Your task to perform on an android device: turn on improve location accuracy Image 0: 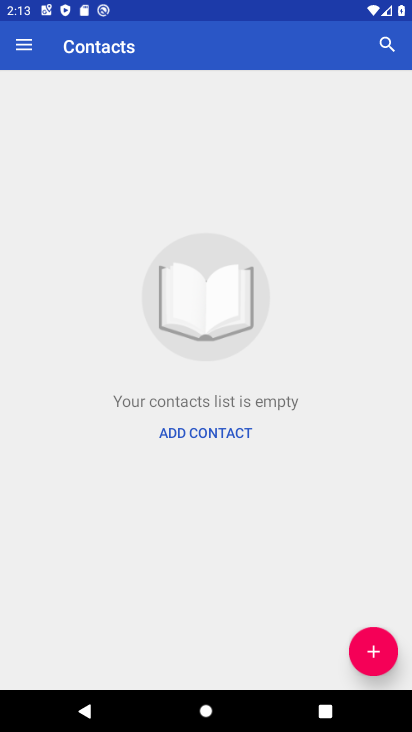
Step 0: press back button
Your task to perform on an android device: turn on improve location accuracy Image 1: 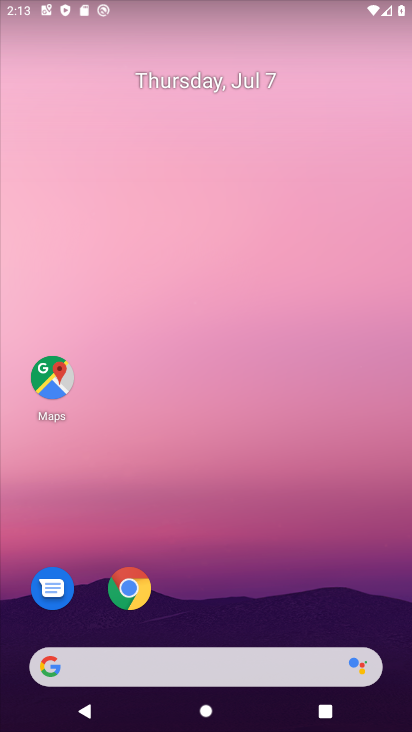
Step 1: drag from (228, 637) to (213, 12)
Your task to perform on an android device: turn on improve location accuracy Image 2: 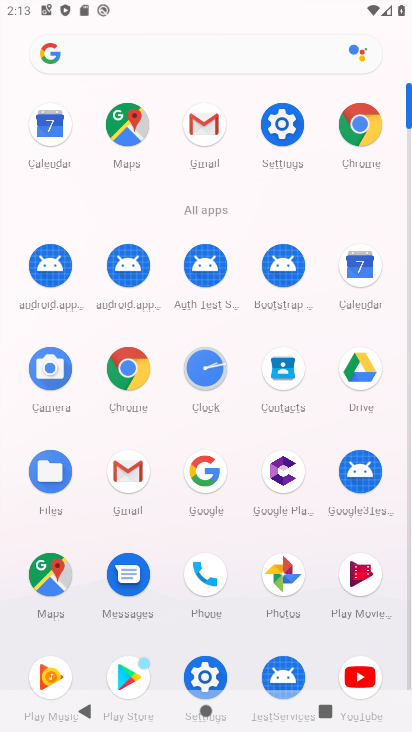
Step 2: click (281, 118)
Your task to perform on an android device: turn on improve location accuracy Image 3: 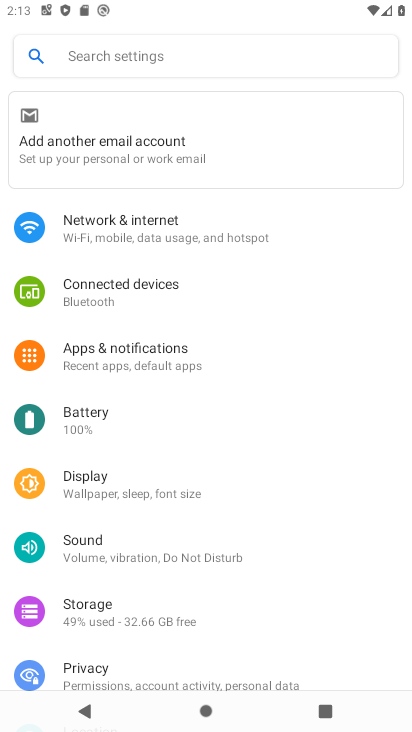
Step 3: drag from (130, 621) to (210, 131)
Your task to perform on an android device: turn on improve location accuracy Image 4: 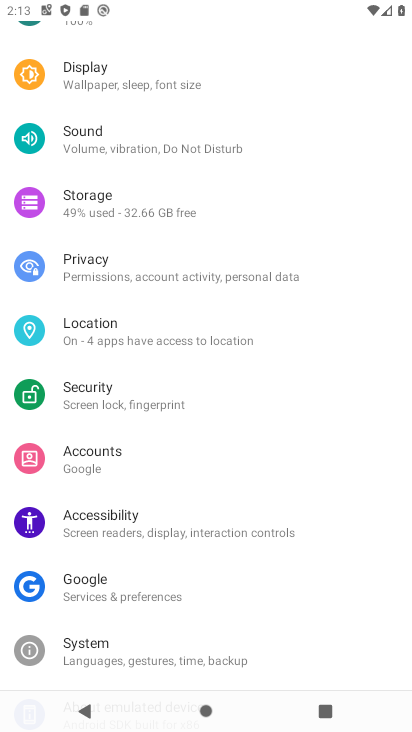
Step 4: click (103, 329)
Your task to perform on an android device: turn on improve location accuracy Image 5: 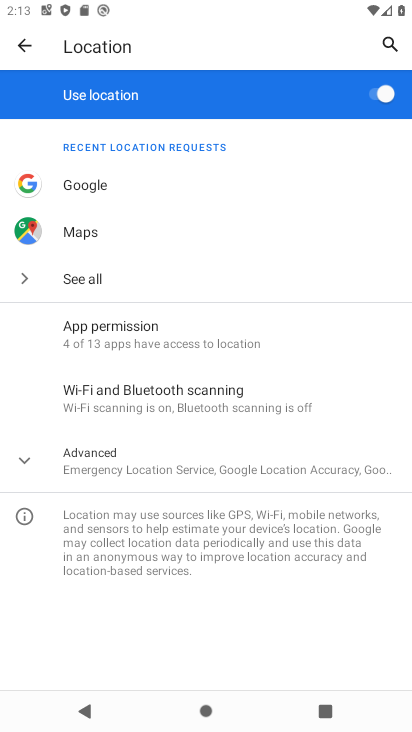
Step 5: click (118, 462)
Your task to perform on an android device: turn on improve location accuracy Image 6: 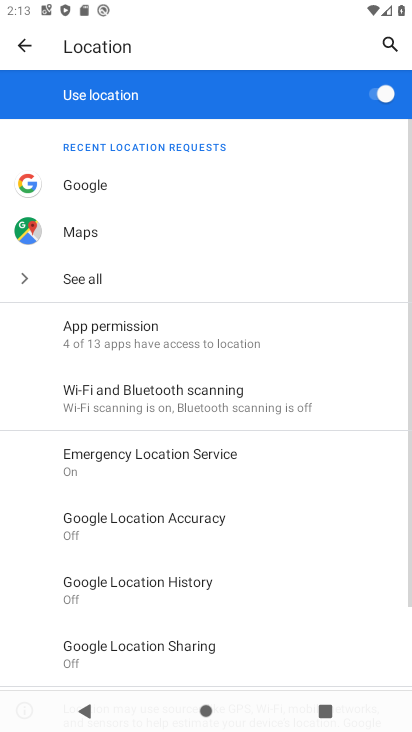
Step 6: click (179, 521)
Your task to perform on an android device: turn on improve location accuracy Image 7: 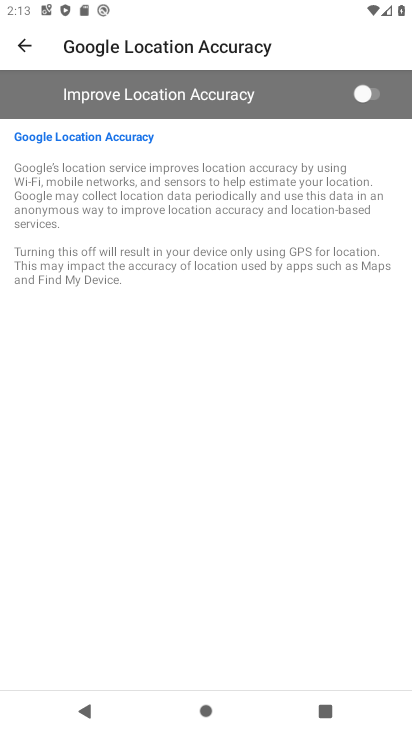
Step 7: click (362, 98)
Your task to perform on an android device: turn on improve location accuracy Image 8: 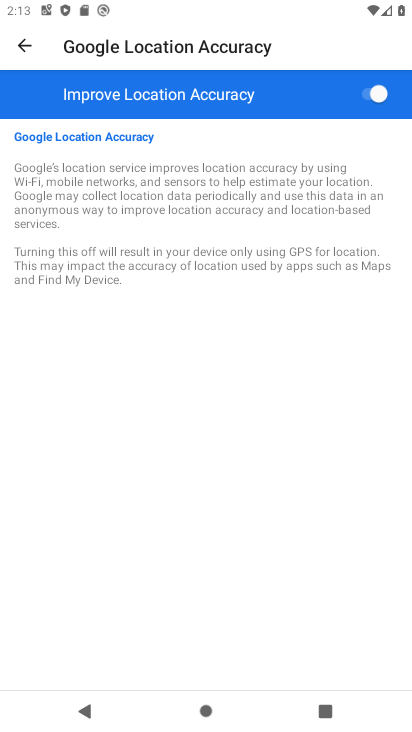
Step 8: task complete